Your task to perform on an android device: toggle wifi Image 0: 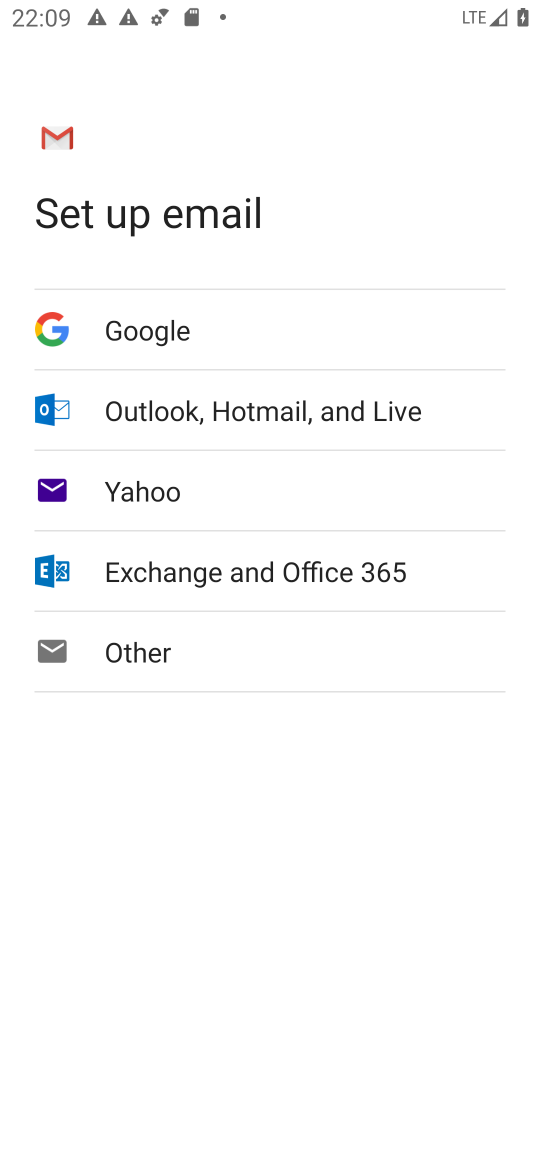
Step 0: press home button
Your task to perform on an android device: toggle wifi Image 1: 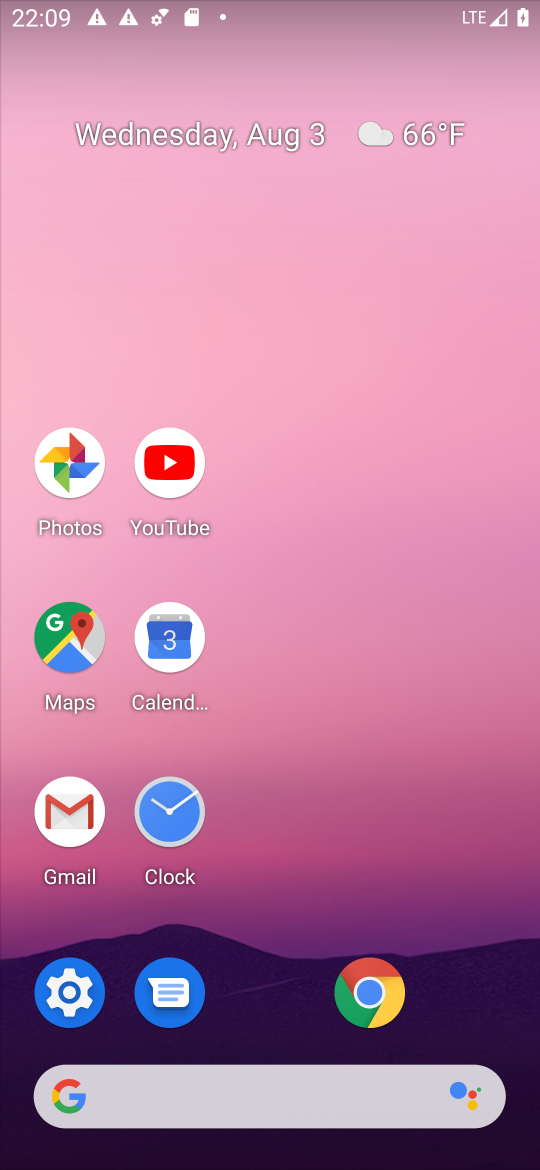
Step 1: click (71, 989)
Your task to perform on an android device: toggle wifi Image 2: 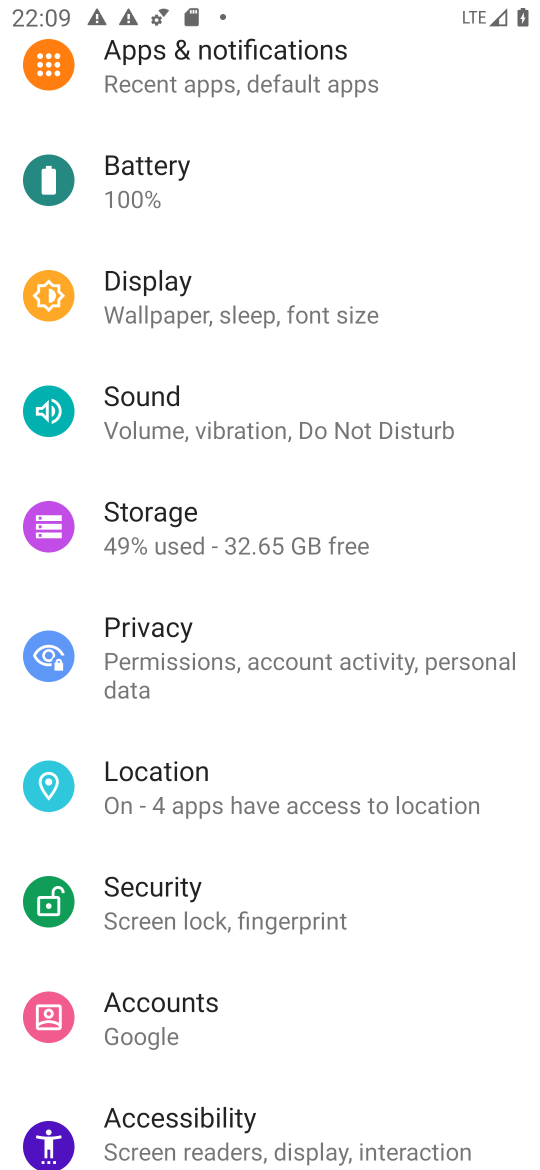
Step 2: drag from (237, 195) to (236, 802)
Your task to perform on an android device: toggle wifi Image 3: 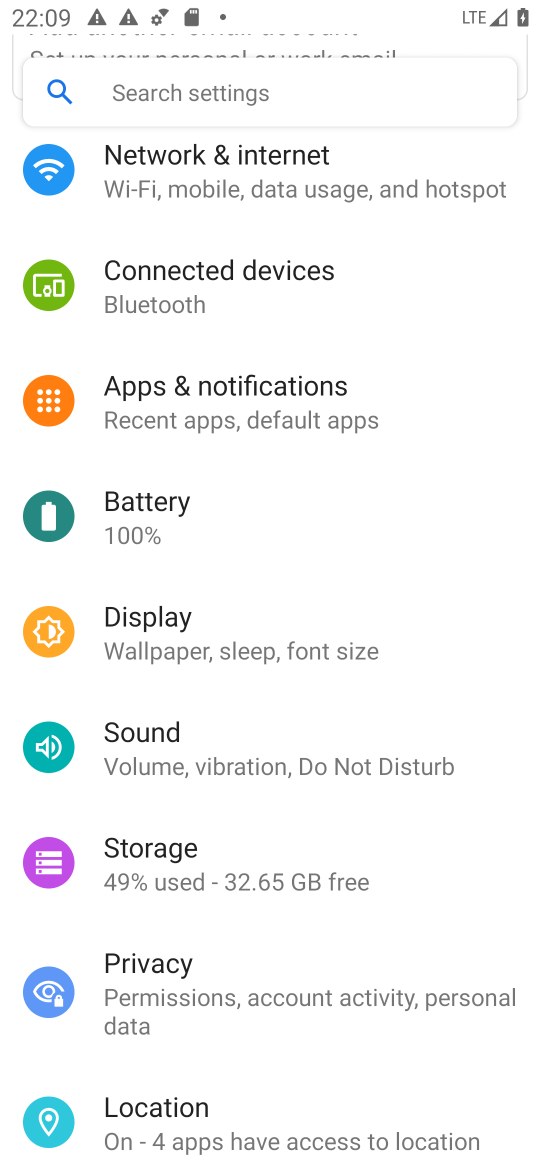
Step 3: click (201, 155)
Your task to perform on an android device: toggle wifi Image 4: 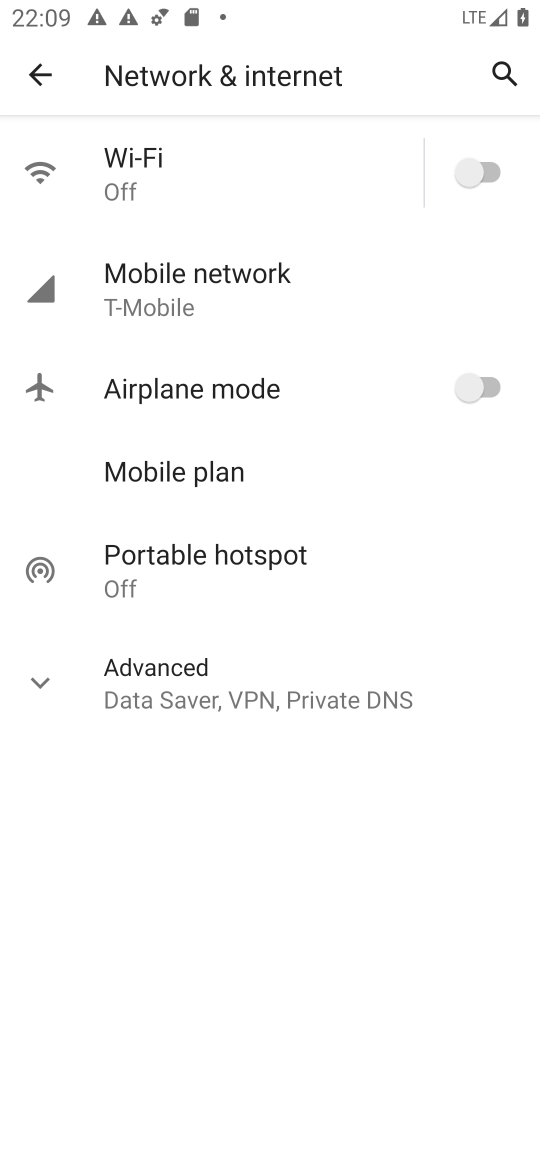
Step 4: click (474, 170)
Your task to perform on an android device: toggle wifi Image 5: 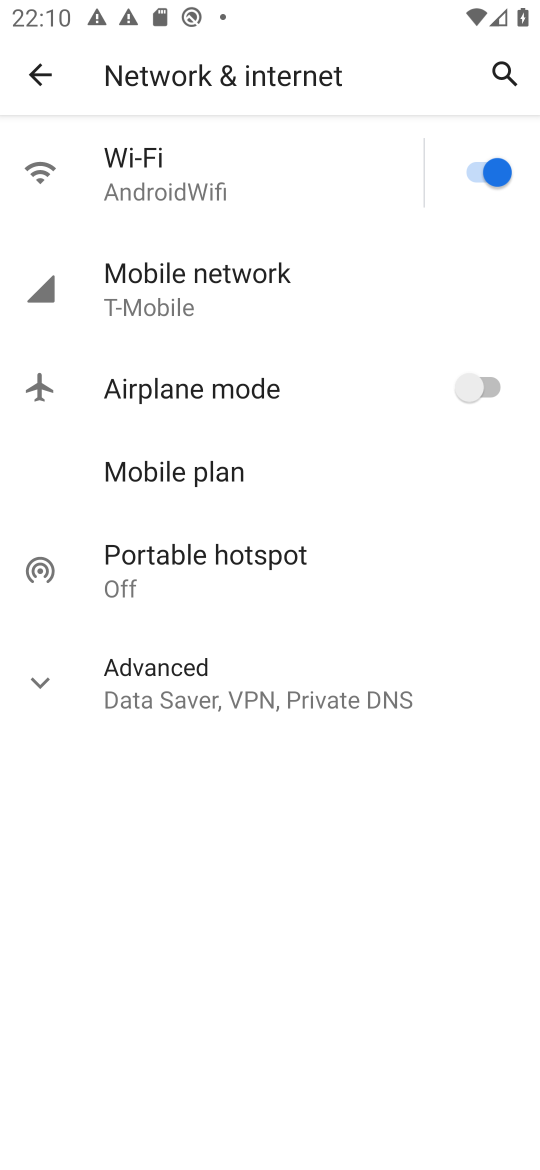
Step 5: task complete